Your task to perform on an android device: visit the assistant section in the google photos Image 0: 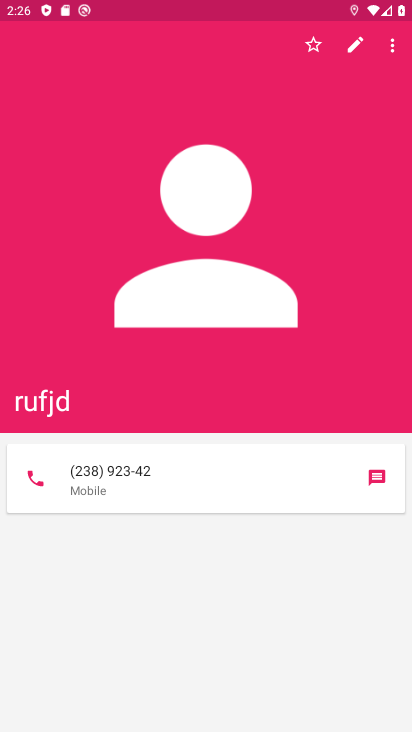
Step 0: press home button
Your task to perform on an android device: visit the assistant section in the google photos Image 1: 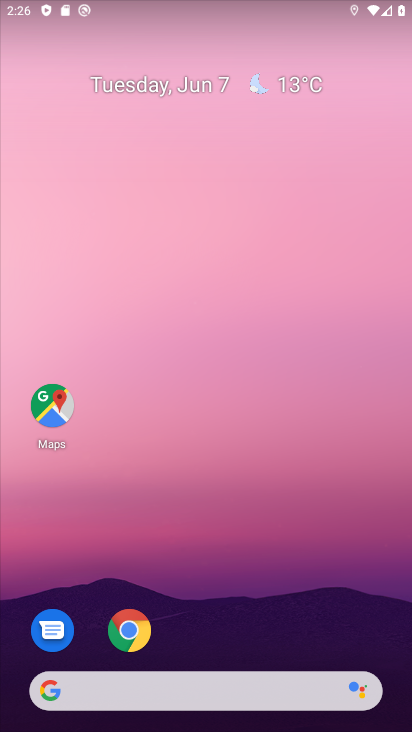
Step 1: drag from (176, 676) to (224, 170)
Your task to perform on an android device: visit the assistant section in the google photos Image 2: 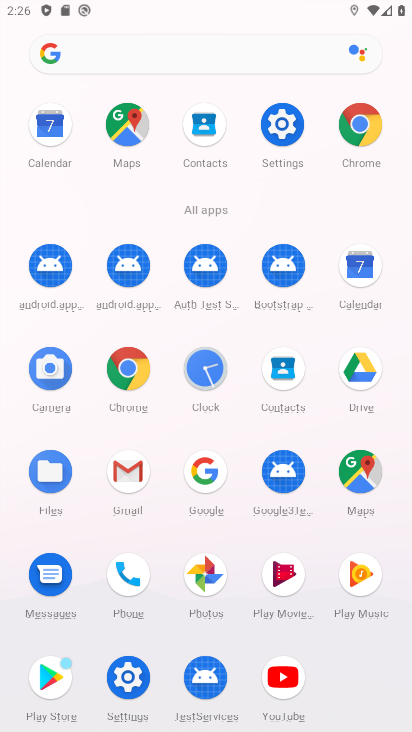
Step 2: click (205, 580)
Your task to perform on an android device: visit the assistant section in the google photos Image 3: 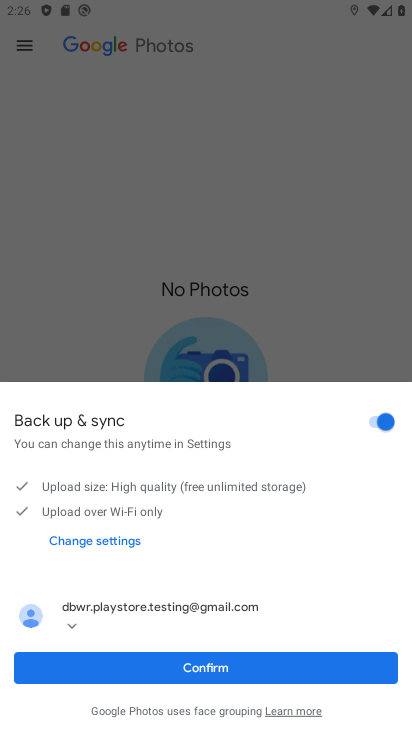
Step 3: click (221, 662)
Your task to perform on an android device: visit the assistant section in the google photos Image 4: 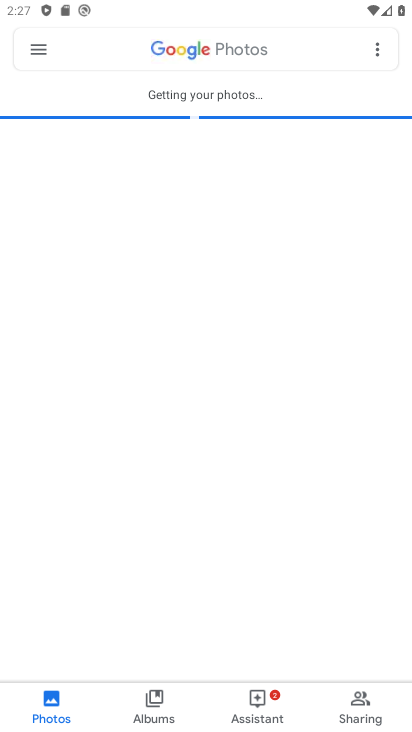
Step 4: click (274, 714)
Your task to perform on an android device: visit the assistant section in the google photos Image 5: 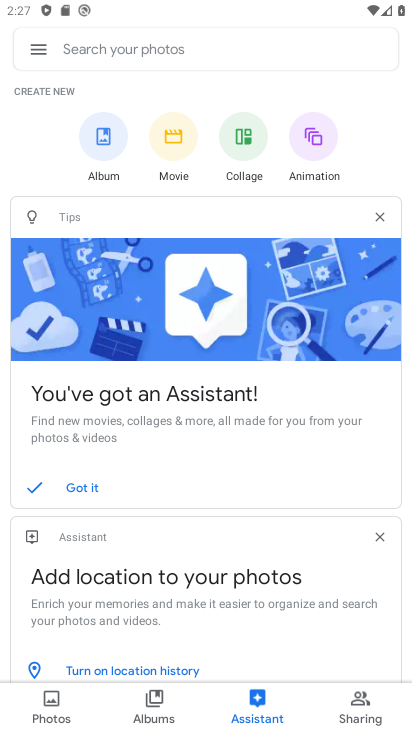
Step 5: task complete